Your task to perform on an android device: Open Google Chrome and open the bookmarks view Image 0: 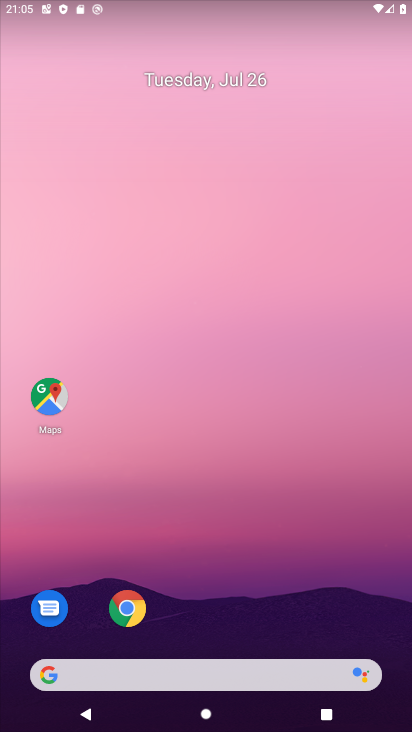
Step 0: click (120, 612)
Your task to perform on an android device: Open Google Chrome and open the bookmarks view Image 1: 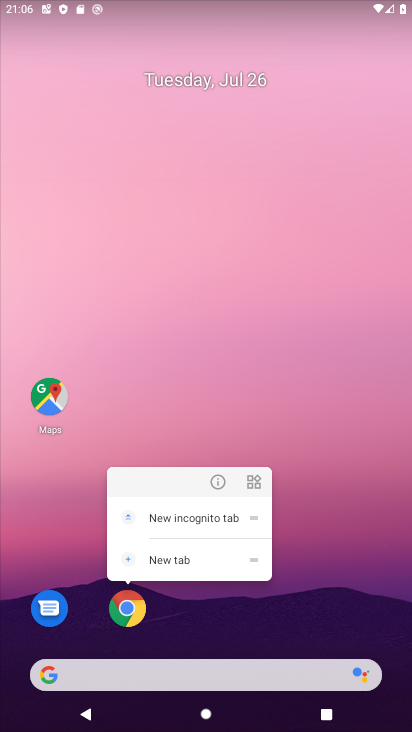
Step 1: click (129, 609)
Your task to perform on an android device: Open Google Chrome and open the bookmarks view Image 2: 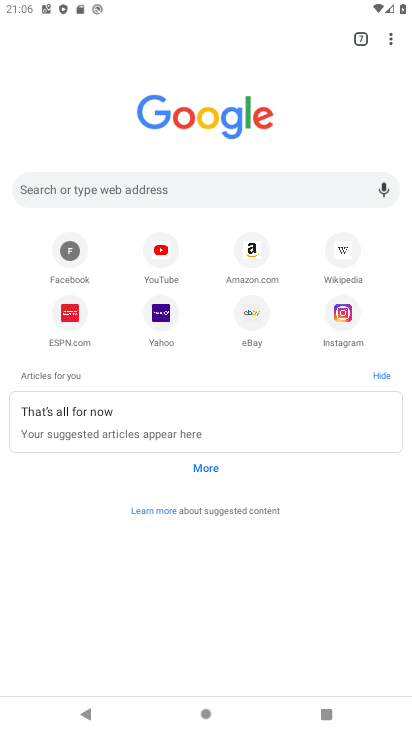
Step 2: click (398, 45)
Your task to perform on an android device: Open Google Chrome and open the bookmarks view Image 3: 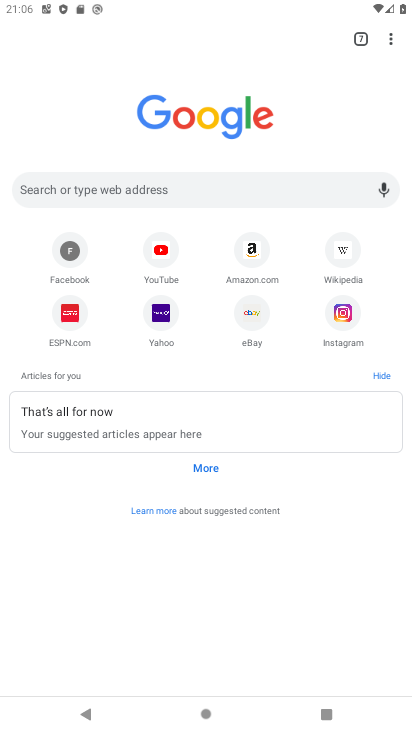
Step 3: click (392, 35)
Your task to perform on an android device: Open Google Chrome and open the bookmarks view Image 4: 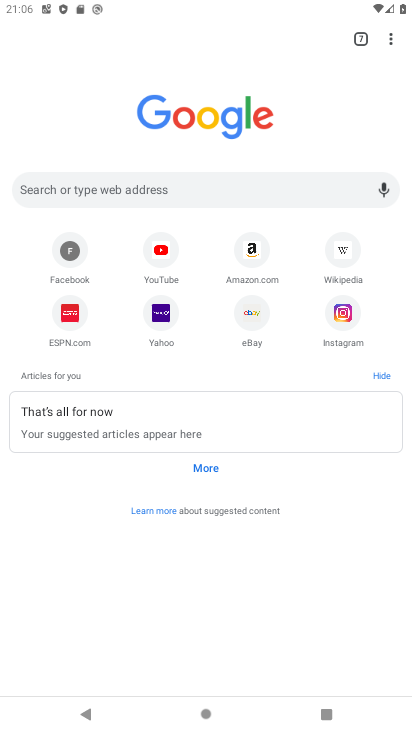
Step 4: click (395, 39)
Your task to perform on an android device: Open Google Chrome and open the bookmarks view Image 5: 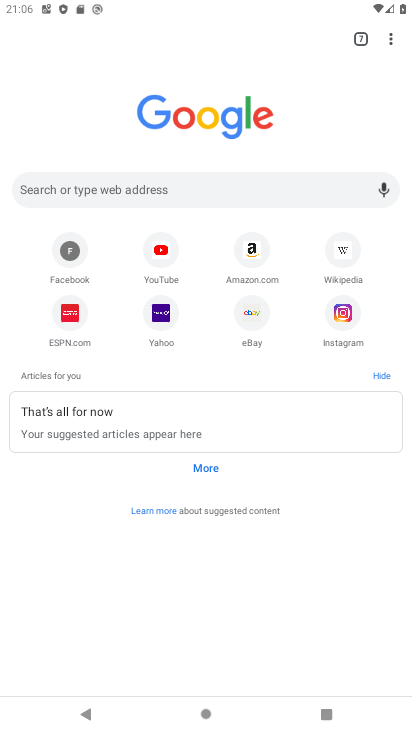
Step 5: click (392, 44)
Your task to perform on an android device: Open Google Chrome and open the bookmarks view Image 6: 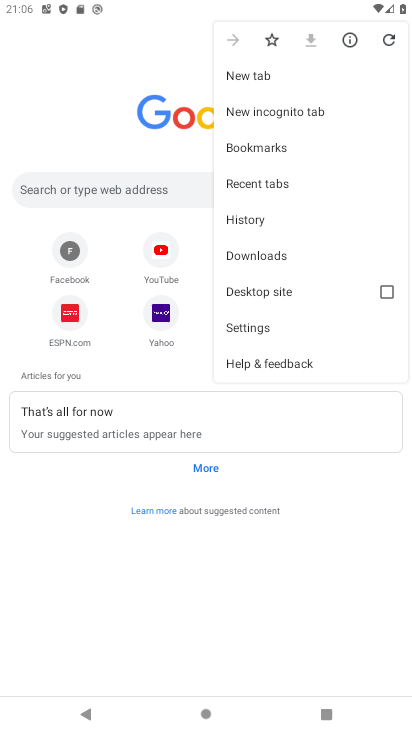
Step 6: click (260, 145)
Your task to perform on an android device: Open Google Chrome and open the bookmarks view Image 7: 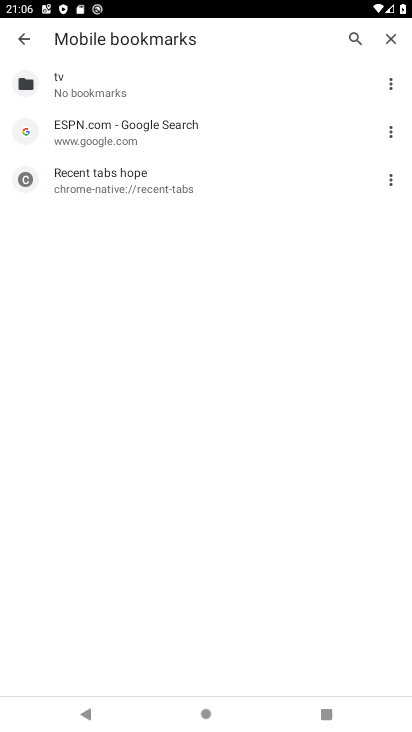
Step 7: task complete